Your task to perform on an android device: Open calendar and show me the first week of next month Image 0: 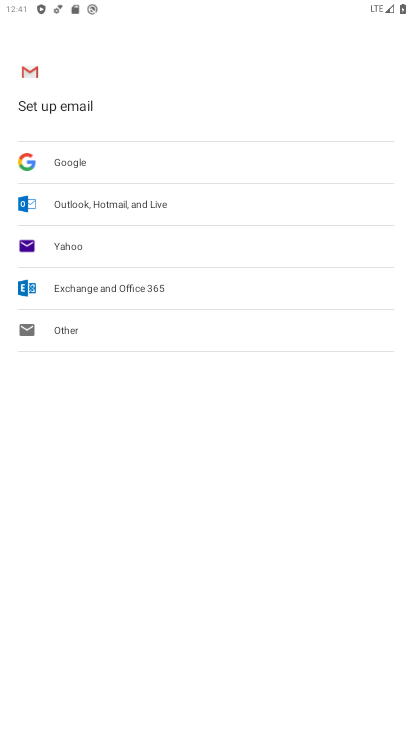
Step 0: press home button
Your task to perform on an android device: Open calendar and show me the first week of next month Image 1: 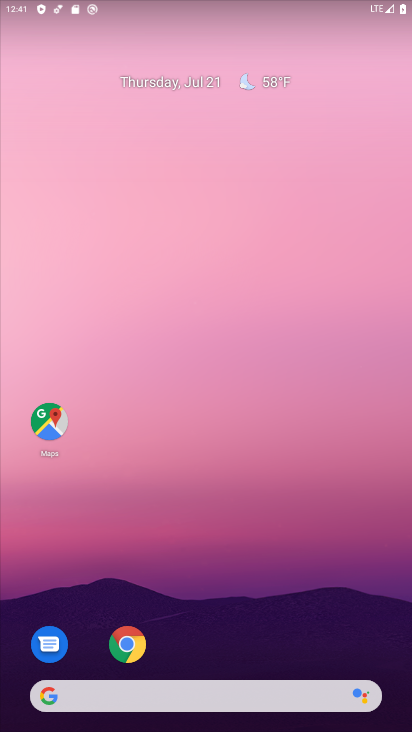
Step 1: drag from (355, 608) to (374, 155)
Your task to perform on an android device: Open calendar and show me the first week of next month Image 2: 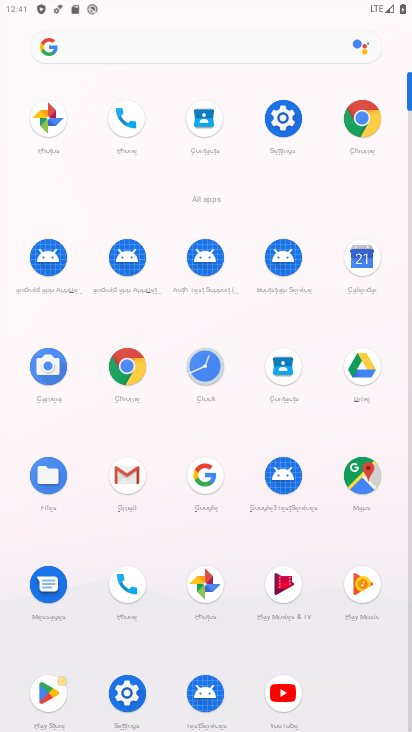
Step 2: click (357, 263)
Your task to perform on an android device: Open calendar and show me the first week of next month Image 3: 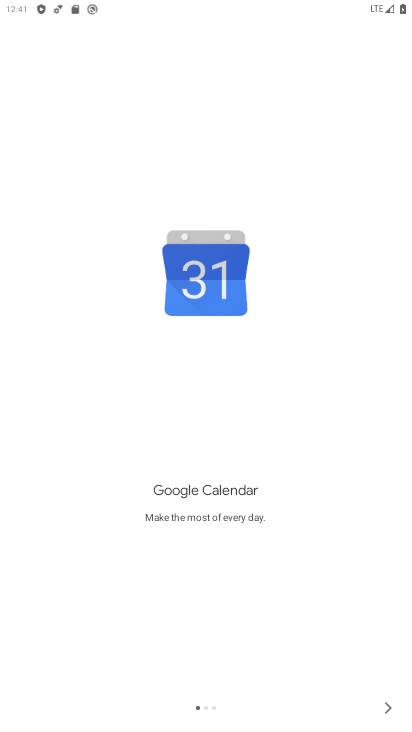
Step 3: click (383, 707)
Your task to perform on an android device: Open calendar and show me the first week of next month Image 4: 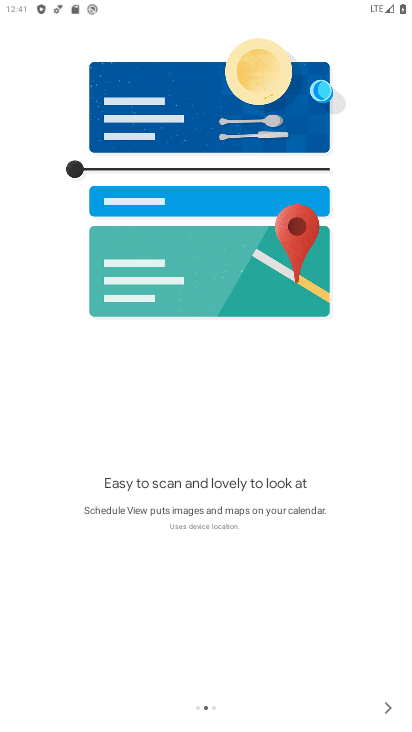
Step 4: click (383, 707)
Your task to perform on an android device: Open calendar and show me the first week of next month Image 5: 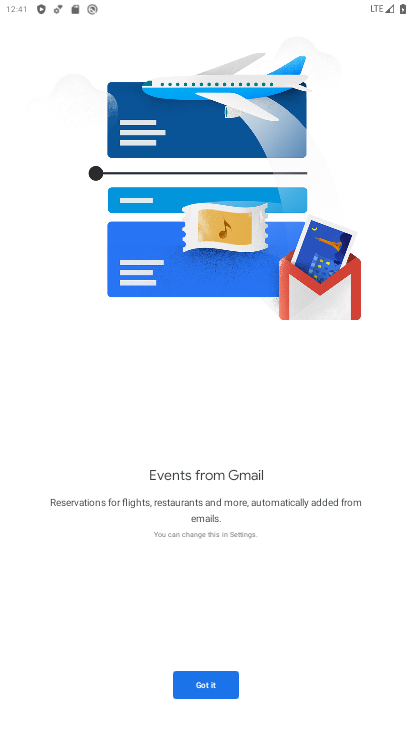
Step 5: click (225, 692)
Your task to perform on an android device: Open calendar and show me the first week of next month Image 6: 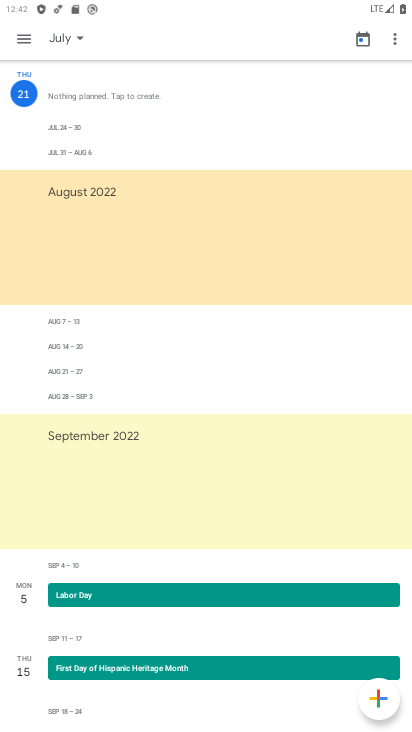
Step 6: click (79, 39)
Your task to perform on an android device: Open calendar and show me the first week of next month Image 7: 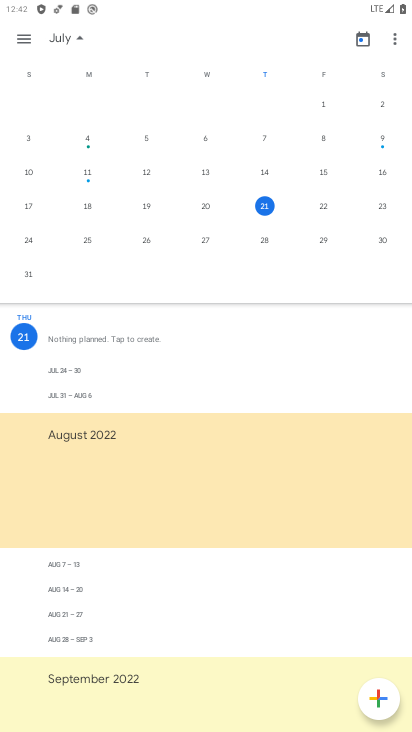
Step 7: task complete